Your task to perform on an android device: toggle javascript in the chrome app Image 0: 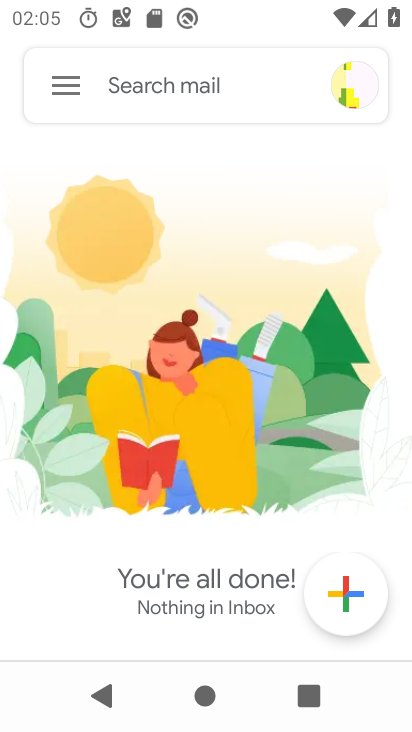
Step 0: drag from (263, 359) to (270, 309)
Your task to perform on an android device: toggle javascript in the chrome app Image 1: 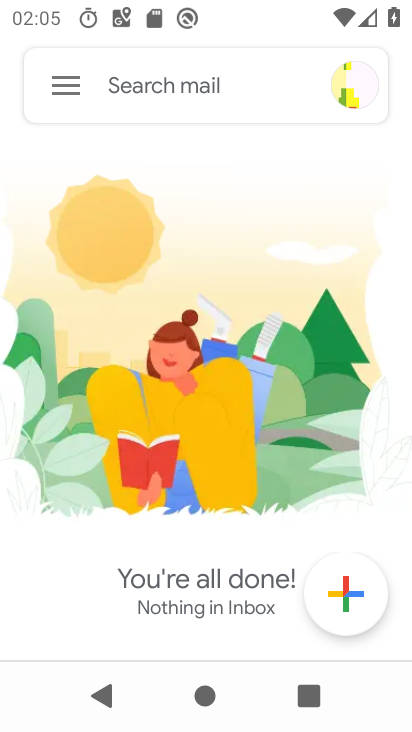
Step 1: click (91, 97)
Your task to perform on an android device: toggle javascript in the chrome app Image 2: 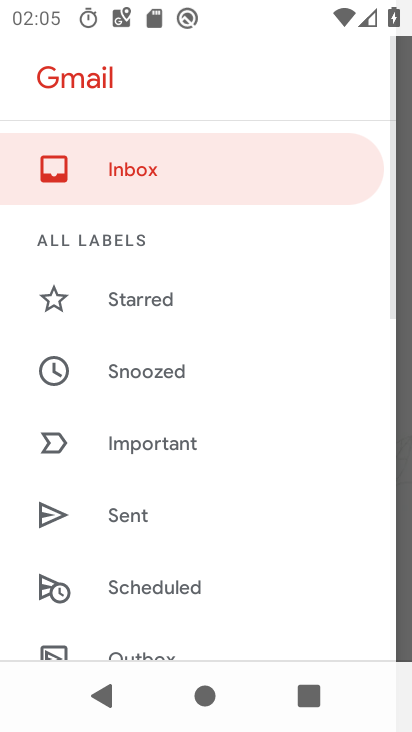
Step 2: drag from (223, 554) to (300, 150)
Your task to perform on an android device: toggle javascript in the chrome app Image 3: 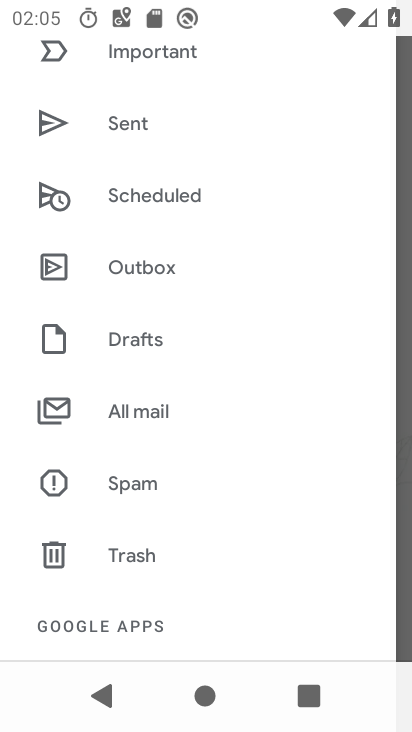
Step 3: press home button
Your task to perform on an android device: toggle javascript in the chrome app Image 4: 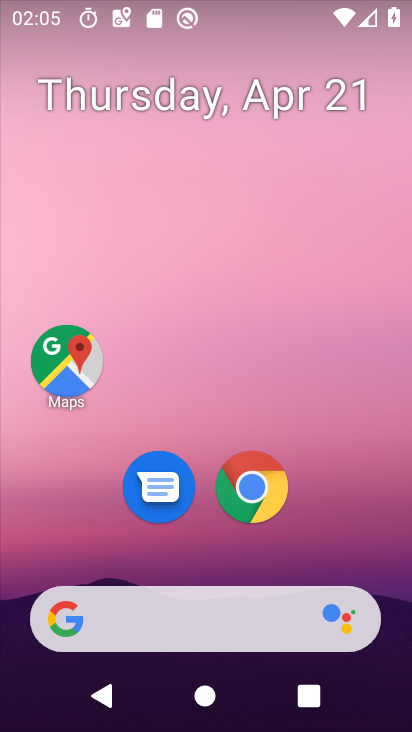
Step 4: click (245, 482)
Your task to perform on an android device: toggle javascript in the chrome app Image 5: 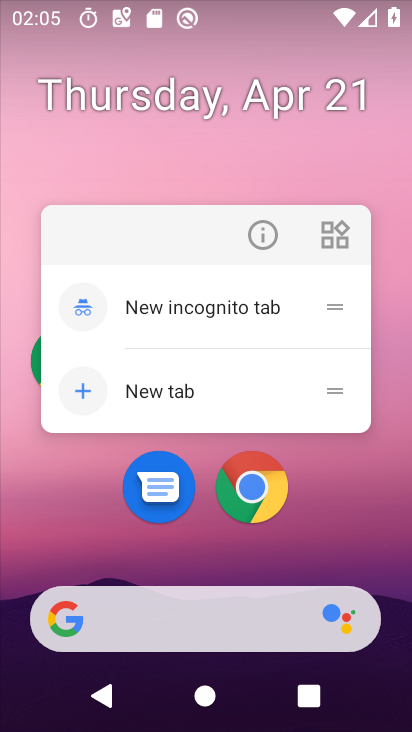
Step 5: click (271, 228)
Your task to perform on an android device: toggle javascript in the chrome app Image 6: 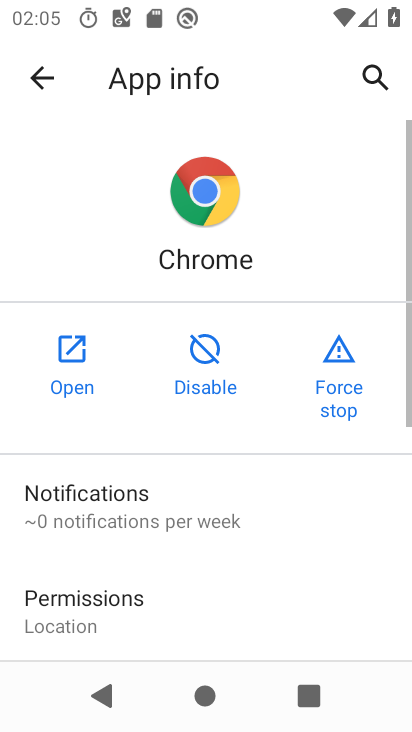
Step 6: click (73, 365)
Your task to perform on an android device: toggle javascript in the chrome app Image 7: 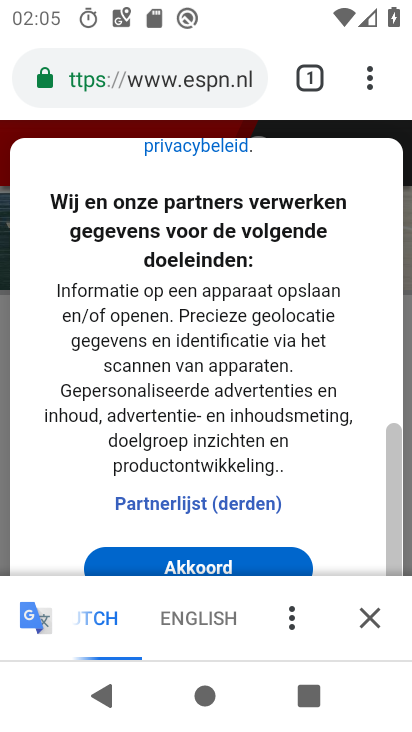
Step 7: drag from (255, 489) to (260, 373)
Your task to perform on an android device: toggle javascript in the chrome app Image 8: 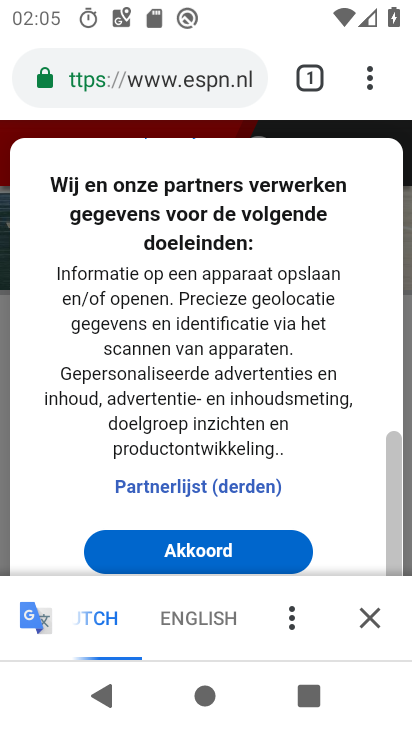
Step 8: click (376, 84)
Your task to perform on an android device: toggle javascript in the chrome app Image 9: 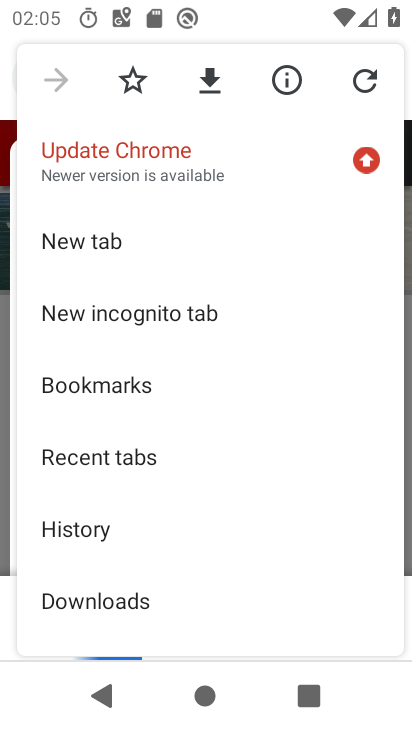
Step 9: drag from (176, 560) to (281, 176)
Your task to perform on an android device: toggle javascript in the chrome app Image 10: 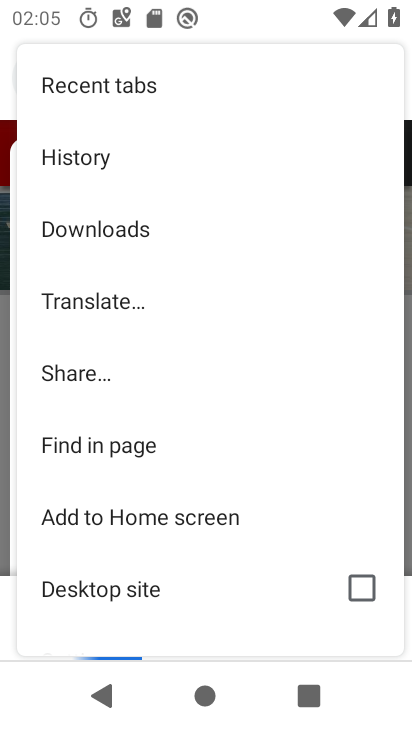
Step 10: drag from (167, 411) to (350, 0)
Your task to perform on an android device: toggle javascript in the chrome app Image 11: 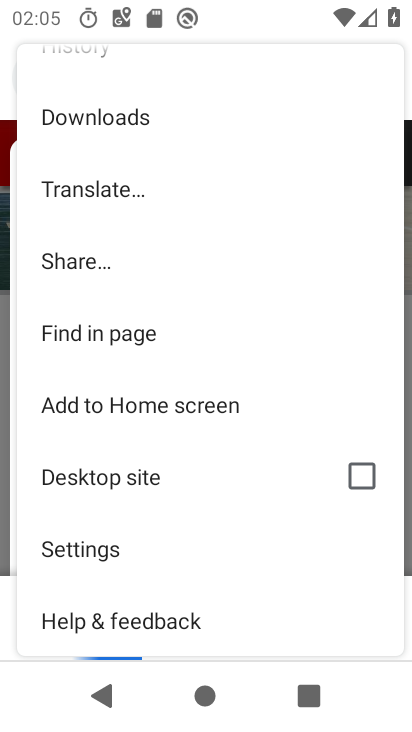
Step 11: click (122, 554)
Your task to perform on an android device: toggle javascript in the chrome app Image 12: 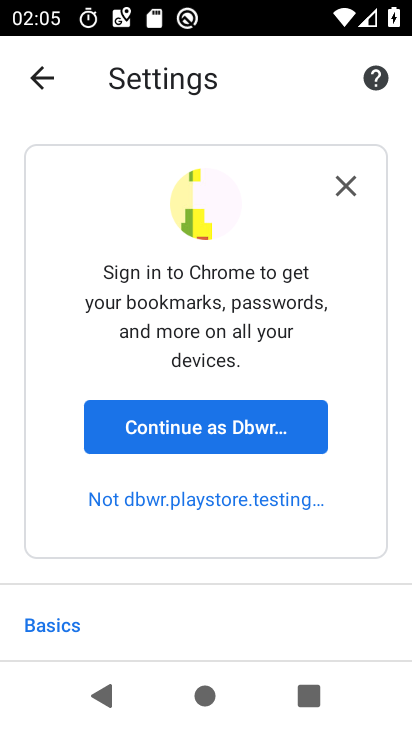
Step 12: click (328, 193)
Your task to perform on an android device: toggle javascript in the chrome app Image 13: 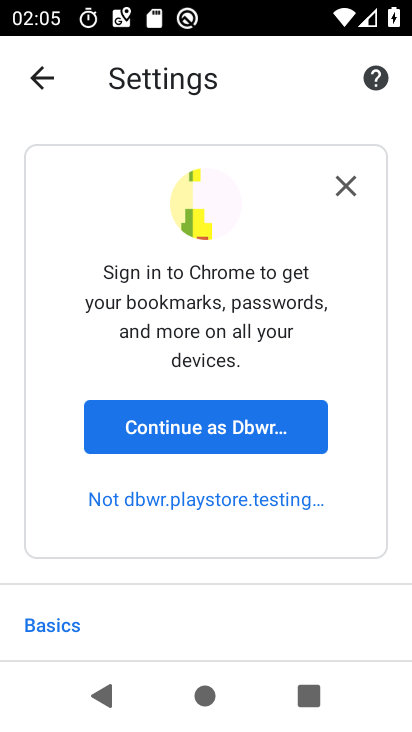
Step 13: click (353, 180)
Your task to perform on an android device: toggle javascript in the chrome app Image 14: 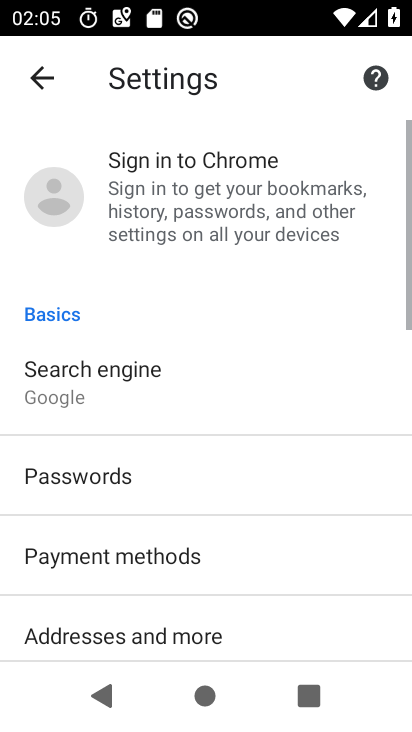
Step 14: drag from (227, 519) to (287, 168)
Your task to perform on an android device: toggle javascript in the chrome app Image 15: 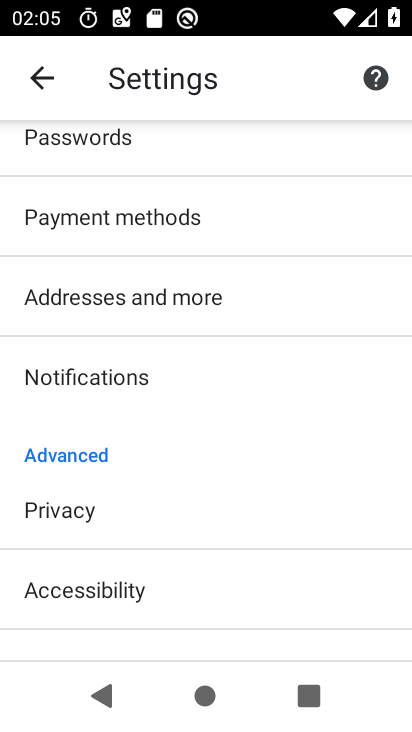
Step 15: drag from (200, 451) to (299, 108)
Your task to perform on an android device: toggle javascript in the chrome app Image 16: 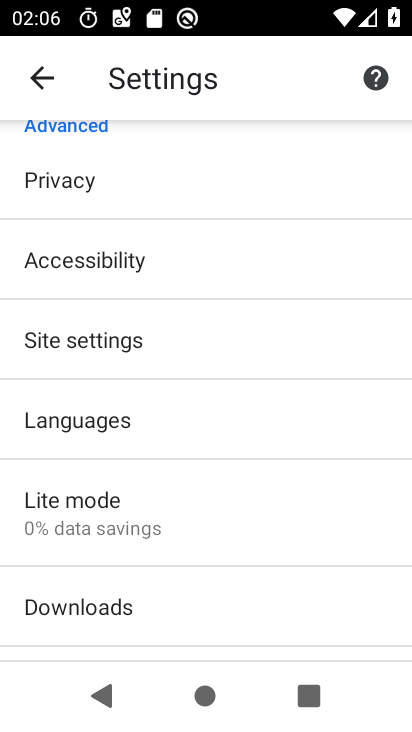
Step 16: click (132, 332)
Your task to perform on an android device: toggle javascript in the chrome app Image 17: 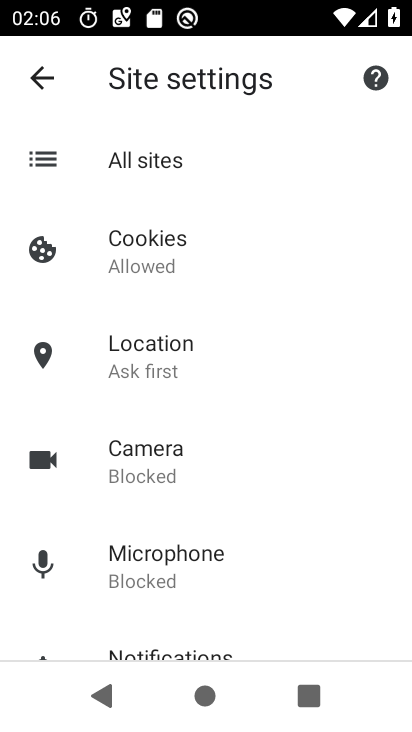
Step 17: drag from (201, 488) to (275, 112)
Your task to perform on an android device: toggle javascript in the chrome app Image 18: 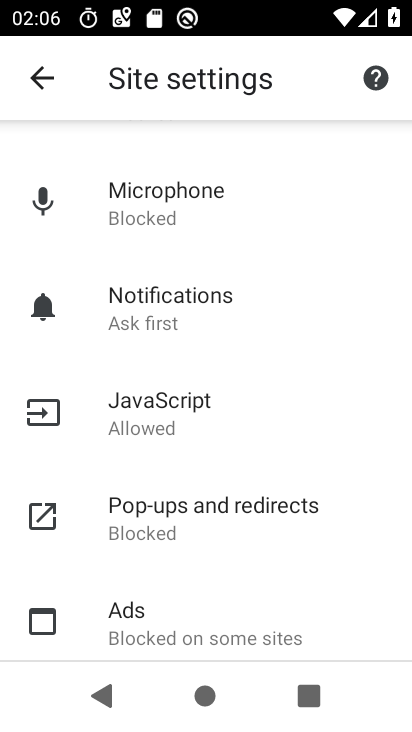
Step 18: click (207, 409)
Your task to perform on an android device: toggle javascript in the chrome app Image 19: 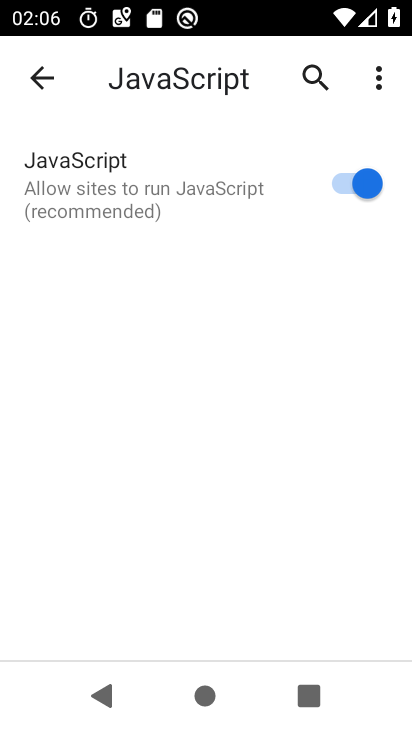
Step 19: click (347, 166)
Your task to perform on an android device: toggle javascript in the chrome app Image 20: 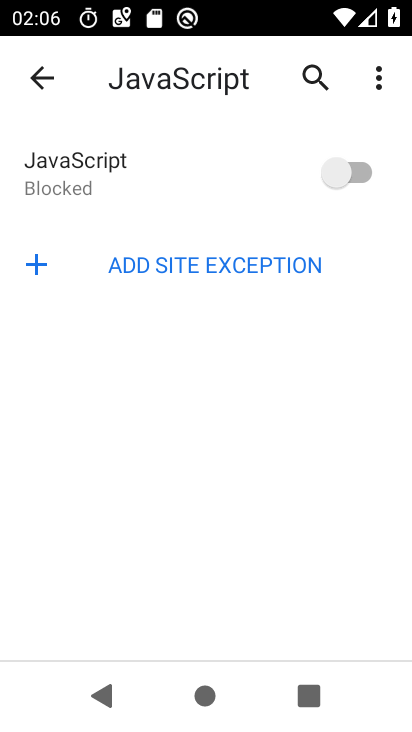
Step 20: task complete